Your task to perform on an android device: open wifi settings Image 0: 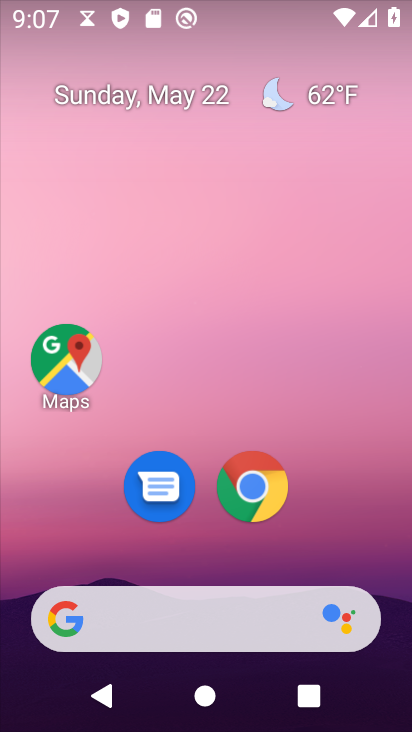
Step 0: press home button
Your task to perform on an android device: open wifi settings Image 1: 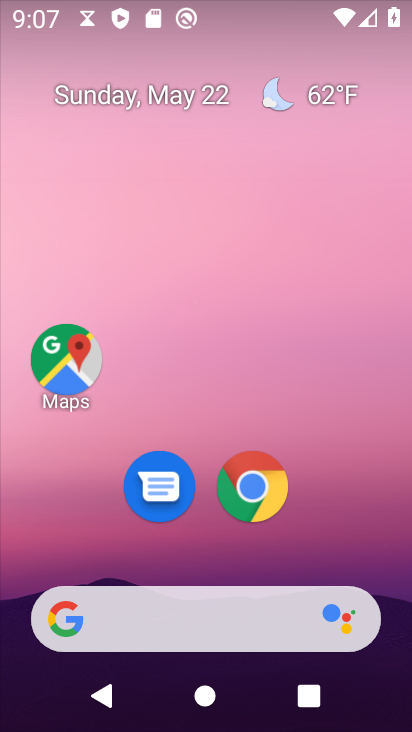
Step 1: drag from (215, 551) to (218, 97)
Your task to perform on an android device: open wifi settings Image 2: 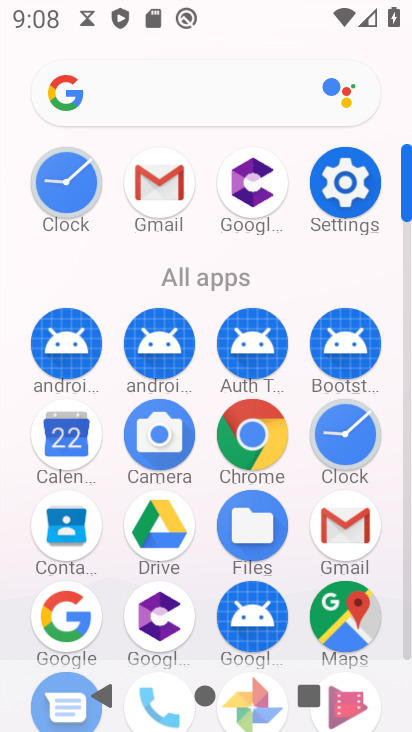
Step 2: click (343, 174)
Your task to perform on an android device: open wifi settings Image 3: 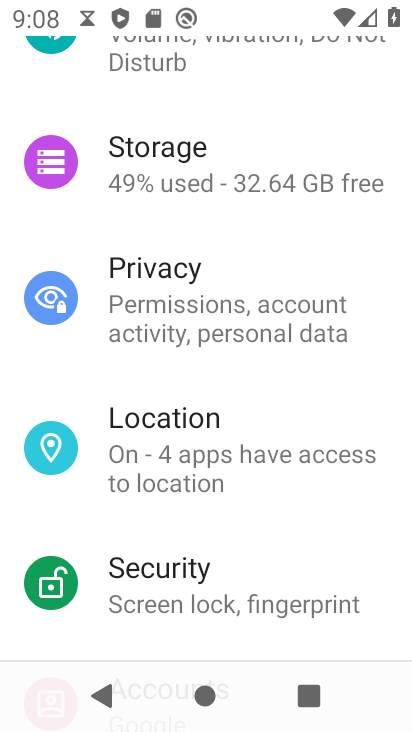
Step 3: drag from (173, 99) to (203, 583)
Your task to perform on an android device: open wifi settings Image 4: 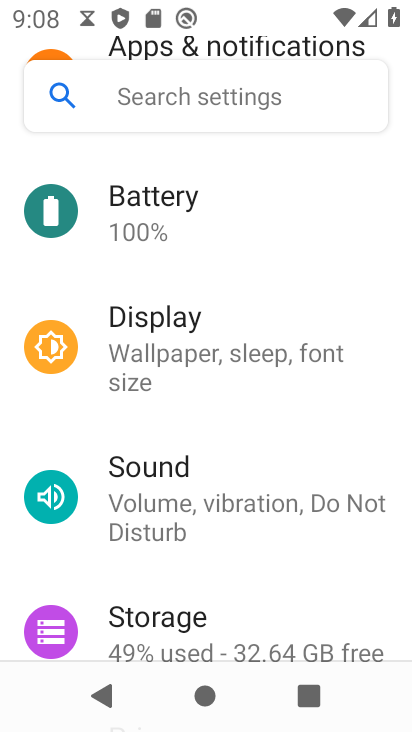
Step 4: drag from (143, 186) to (195, 537)
Your task to perform on an android device: open wifi settings Image 5: 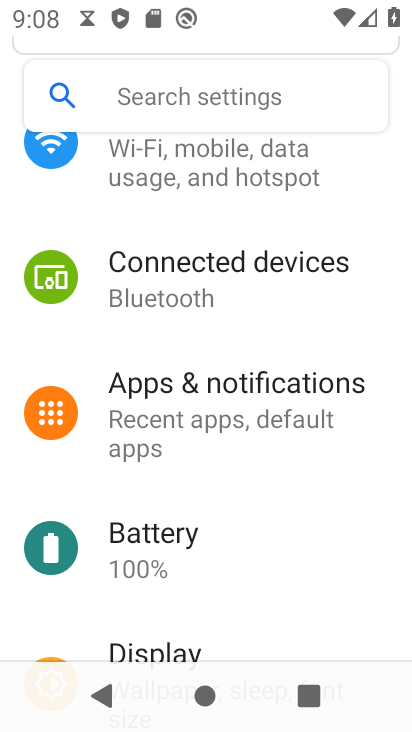
Step 5: click (159, 171)
Your task to perform on an android device: open wifi settings Image 6: 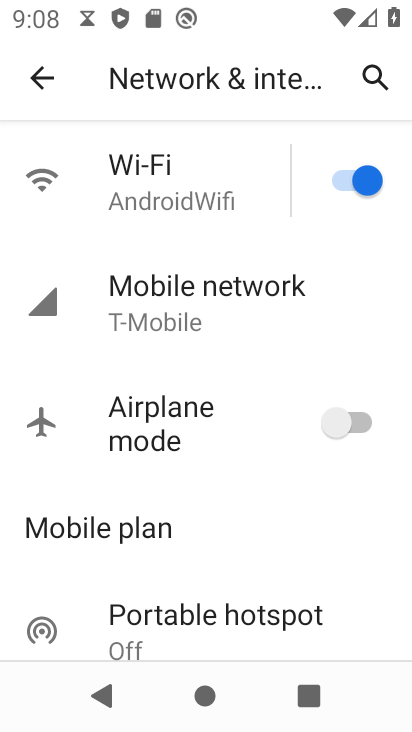
Step 6: click (209, 170)
Your task to perform on an android device: open wifi settings Image 7: 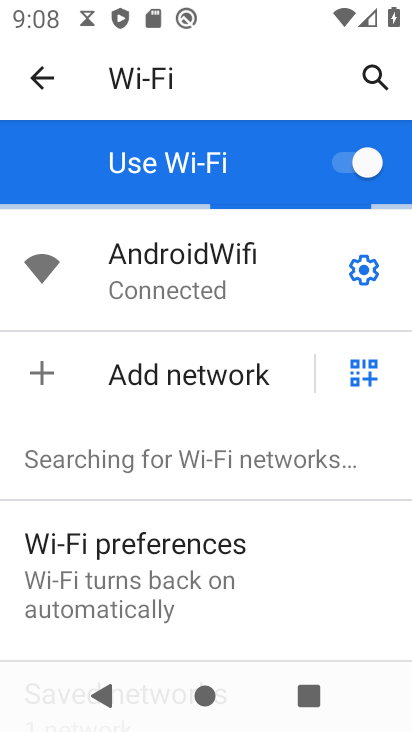
Step 7: task complete